Your task to perform on an android device: Open Google Maps Image 0: 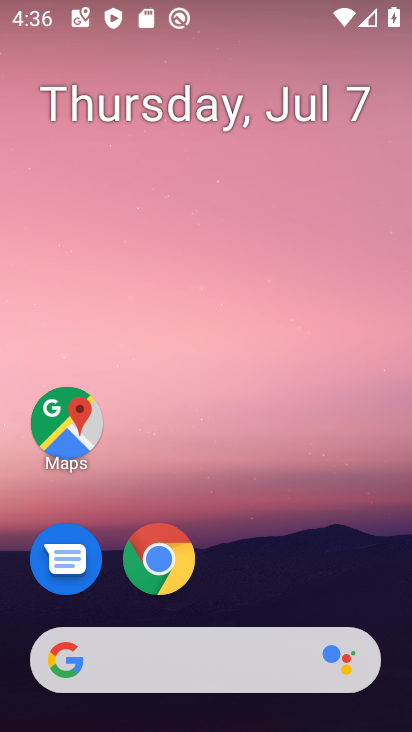
Step 0: click (68, 420)
Your task to perform on an android device: Open Google Maps Image 1: 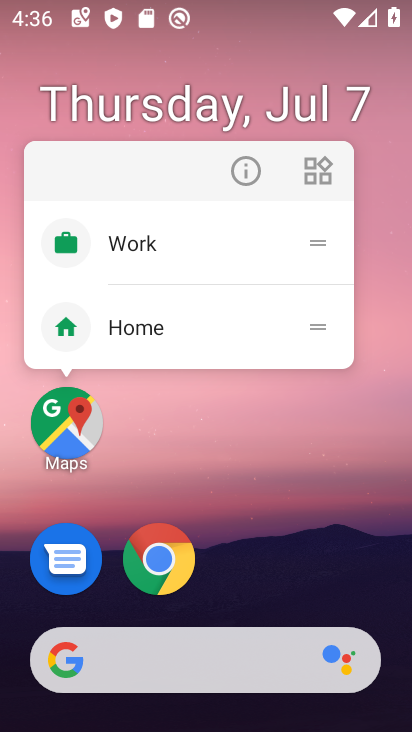
Step 1: click (68, 420)
Your task to perform on an android device: Open Google Maps Image 2: 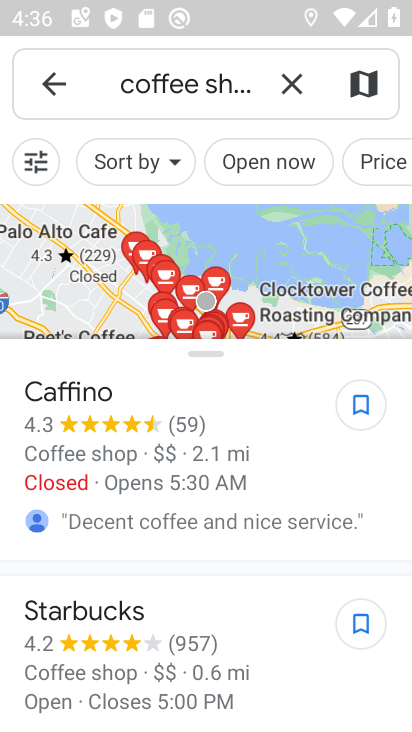
Step 2: task complete